Your task to perform on an android device: Show me popular games on the Play Store Image 0: 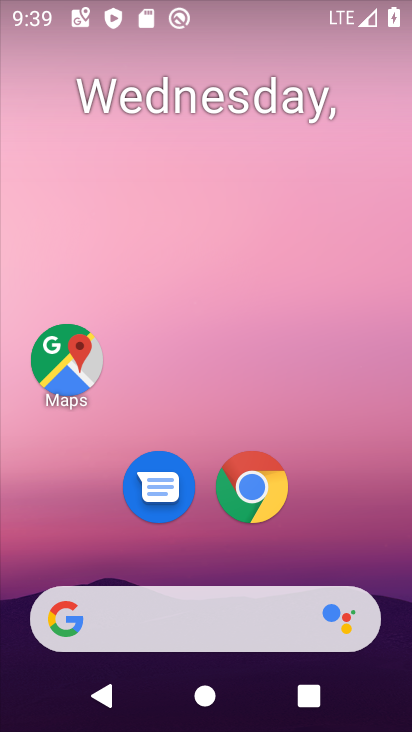
Step 0: drag from (323, 501) to (202, 176)
Your task to perform on an android device: Show me popular games on the Play Store Image 1: 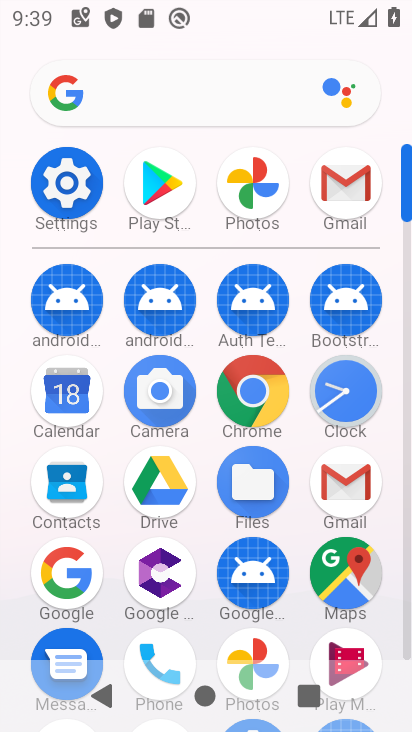
Step 1: drag from (209, 589) to (202, 384)
Your task to perform on an android device: Show me popular games on the Play Store Image 2: 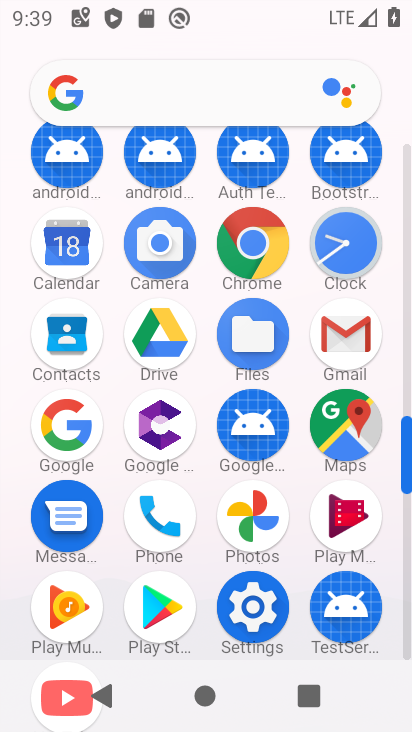
Step 2: click (152, 606)
Your task to perform on an android device: Show me popular games on the Play Store Image 3: 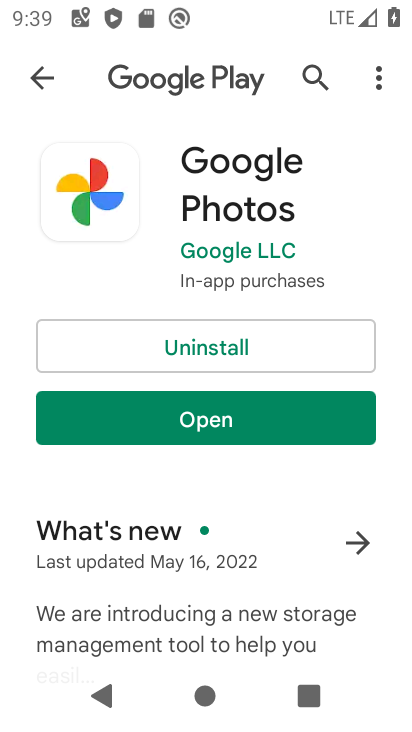
Step 3: click (40, 78)
Your task to perform on an android device: Show me popular games on the Play Store Image 4: 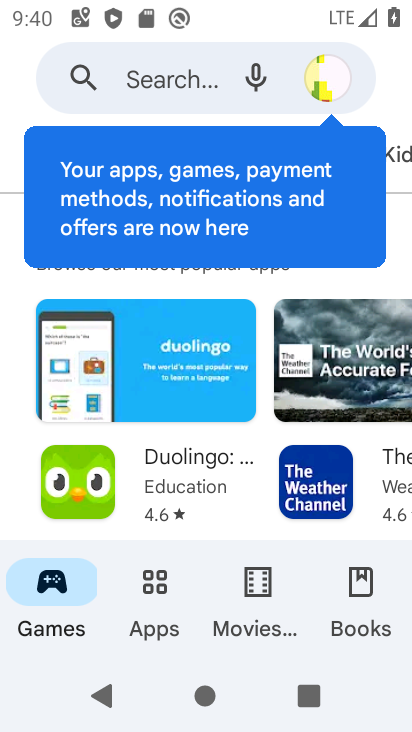
Step 4: task complete